Your task to perform on an android device: read, delete, or share a saved page in the chrome app Image 0: 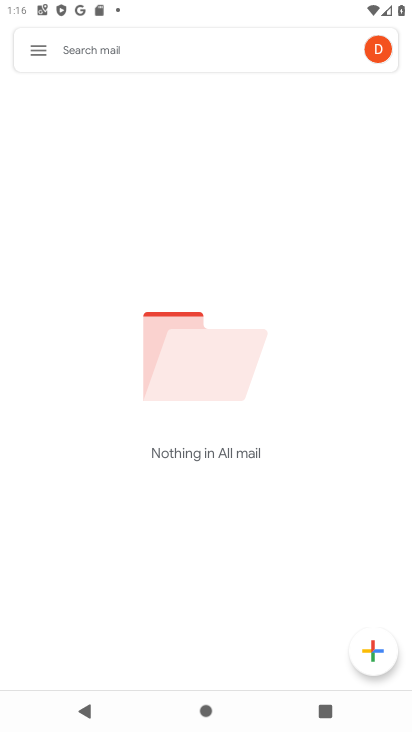
Step 0: press home button
Your task to perform on an android device: read, delete, or share a saved page in the chrome app Image 1: 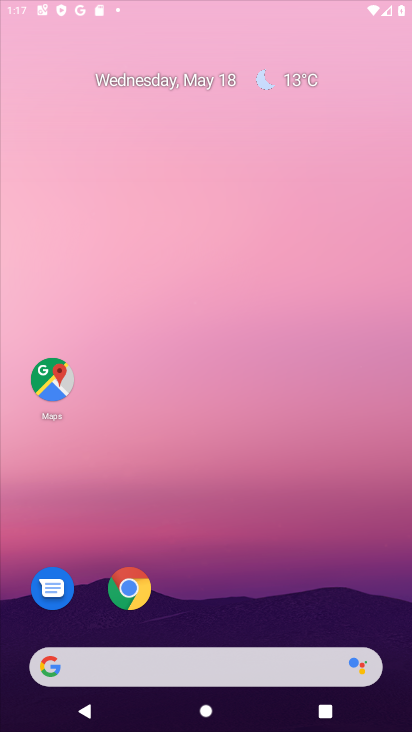
Step 1: drag from (185, 625) to (131, 3)
Your task to perform on an android device: read, delete, or share a saved page in the chrome app Image 2: 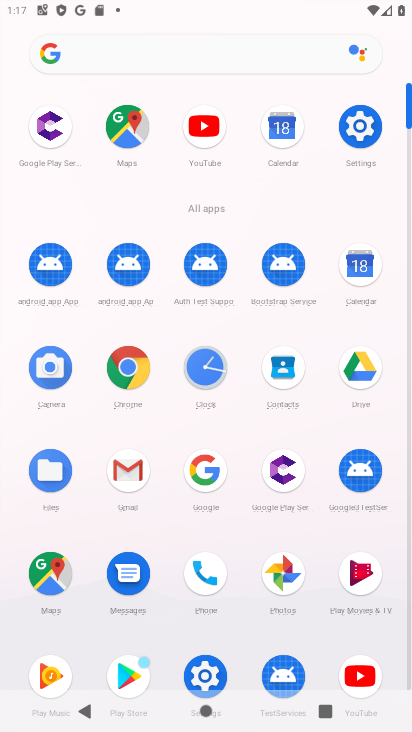
Step 2: click (131, 360)
Your task to perform on an android device: read, delete, or share a saved page in the chrome app Image 3: 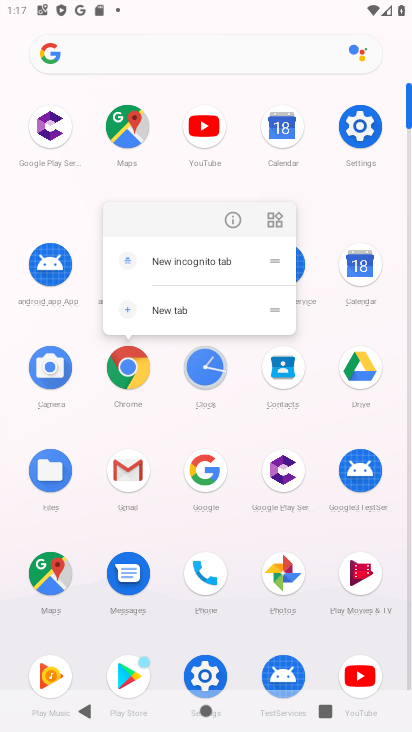
Step 3: click (234, 218)
Your task to perform on an android device: read, delete, or share a saved page in the chrome app Image 4: 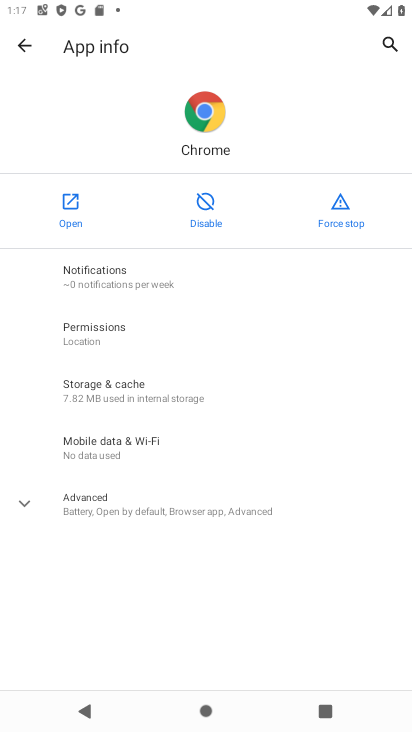
Step 4: click (71, 215)
Your task to perform on an android device: read, delete, or share a saved page in the chrome app Image 5: 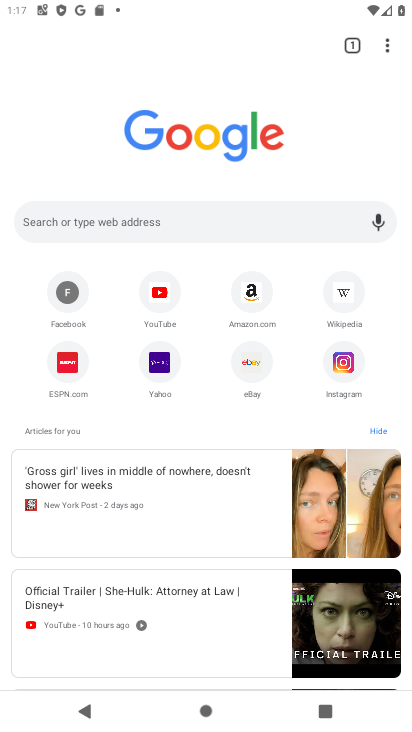
Step 5: click (386, 53)
Your task to perform on an android device: read, delete, or share a saved page in the chrome app Image 6: 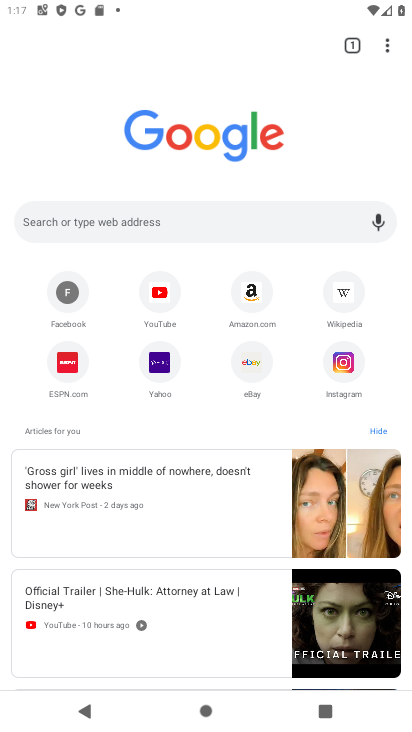
Step 6: click (382, 36)
Your task to perform on an android device: read, delete, or share a saved page in the chrome app Image 7: 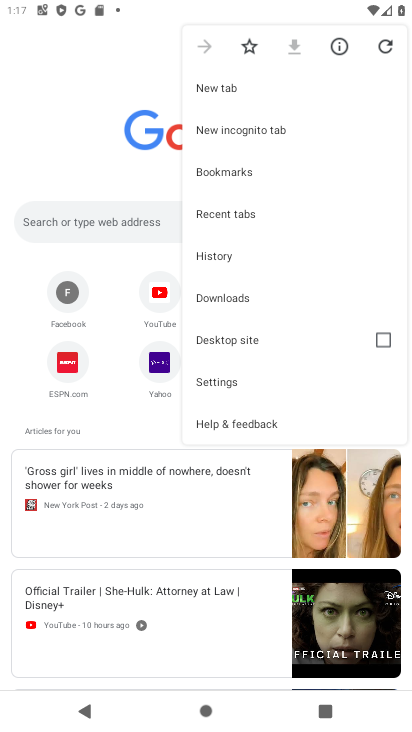
Step 7: drag from (279, 406) to (366, 38)
Your task to perform on an android device: read, delete, or share a saved page in the chrome app Image 8: 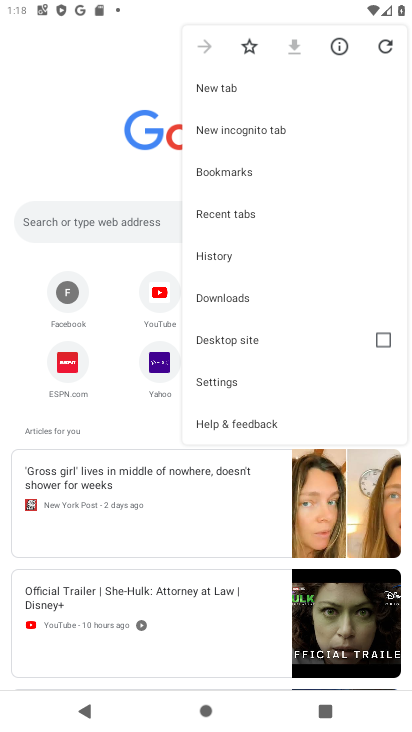
Step 8: click (254, 161)
Your task to perform on an android device: read, delete, or share a saved page in the chrome app Image 9: 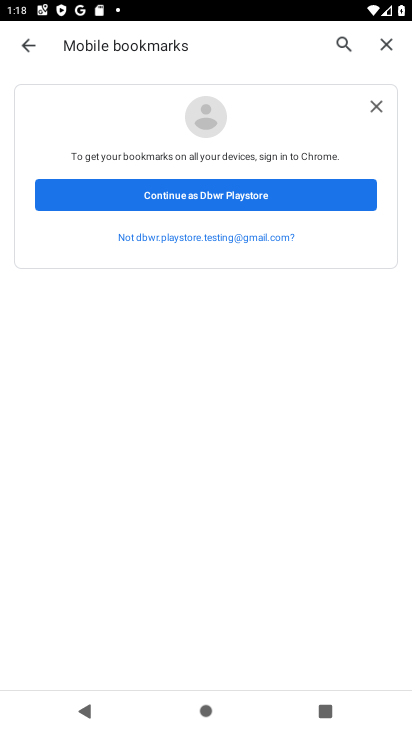
Step 9: task complete